Your task to perform on an android device: Open Chrome and go to the settings page Image 0: 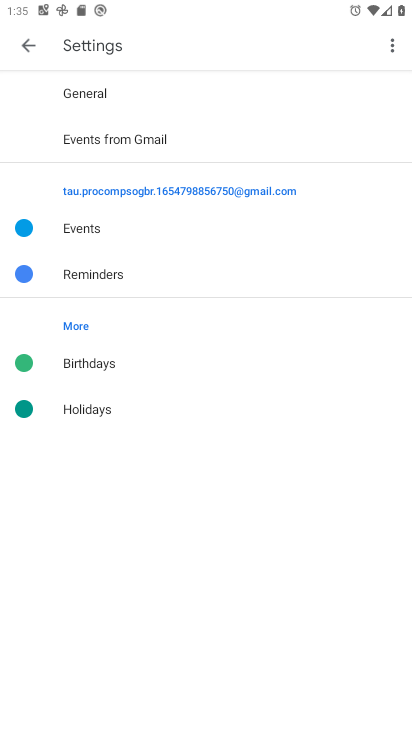
Step 0: press home button
Your task to perform on an android device: Open Chrome and go to the settings page Image 1: 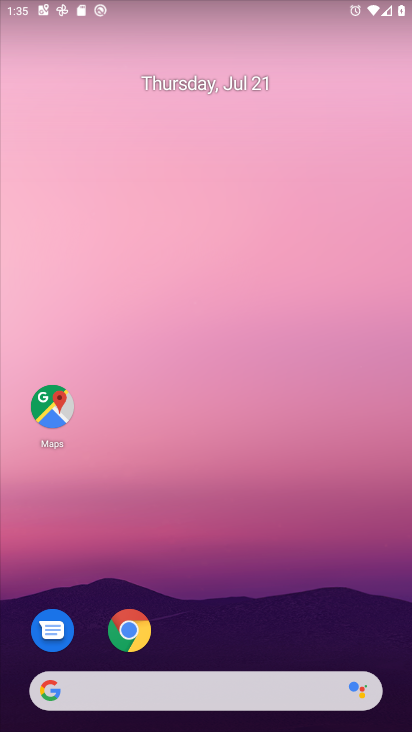
Step 1: drag from (176, 627) to (263, 90)
Your task to perform on an android device: Open Chrome and go to the settings page Image 2: 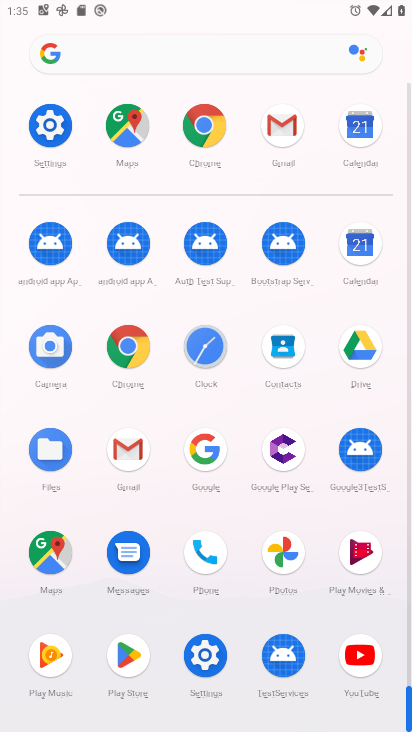
Step 2: click (115, 341)
Your task to perform on an android device: Open Chrome and go to the settings page Image 3: 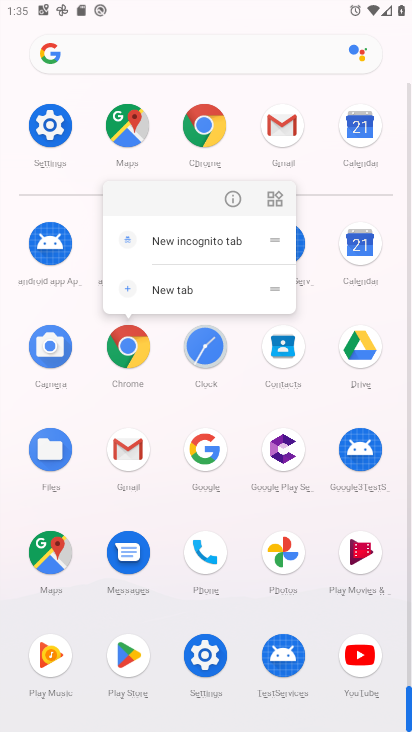
Step 3: click (234, 196)
Your task to perform on an android device: Open Chrome and go to the settings page Image 4: 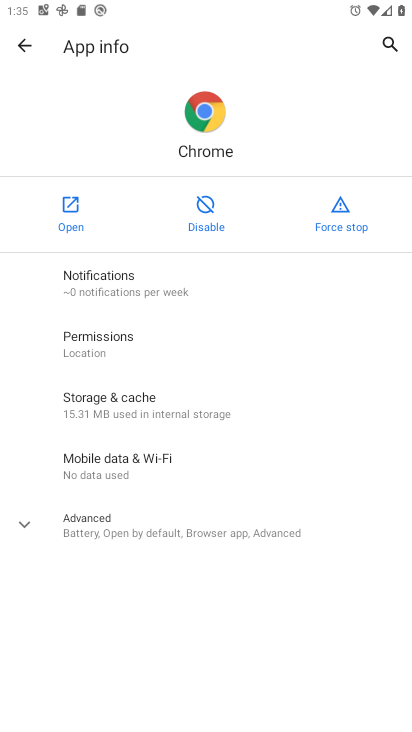
Step 4: click (64, 211)
Your task to perform on an android device: Open Chrome and go to the settings page Image 5: 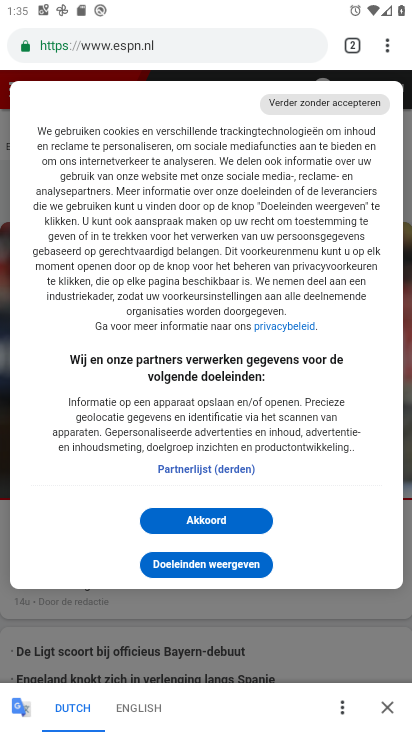
Step 5: task complete